Your task to perform on an android device: see sites visited before in the chrome app Image 0: 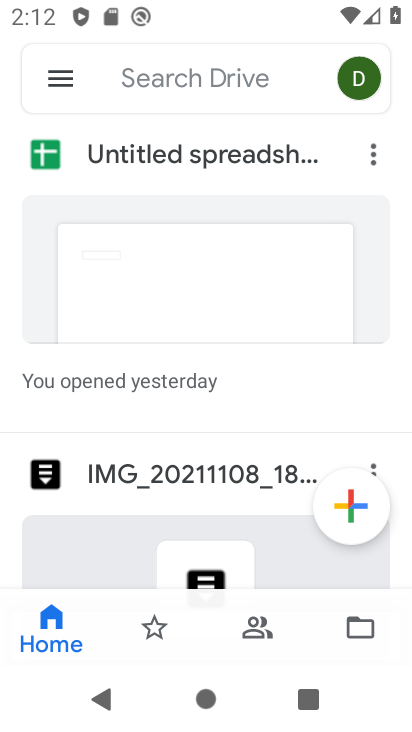
Step 0: press home button
Your task to perform on an android device: see sites visited before in the chrome app Image 1: 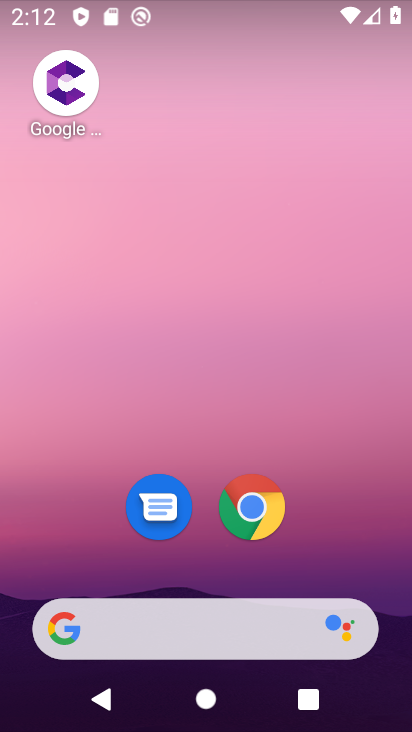
Step 1: click (255, 511)
Your task to perform on an android device: see sites visited before in the chrome app Image 2: 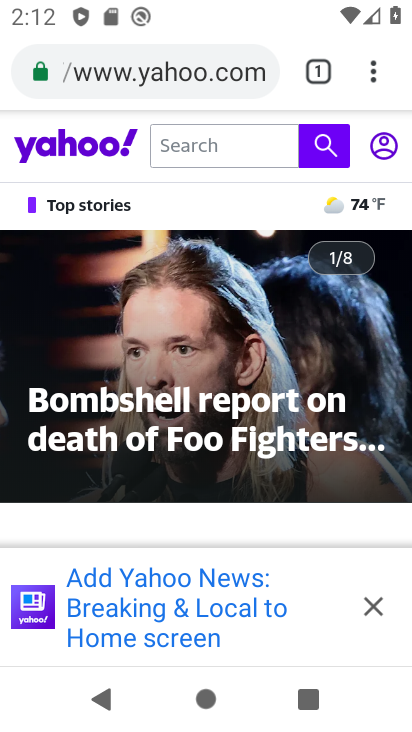
Step 2: click (363, 70)
Your task to perform on an android device: see sites visited before in the chrome app Image 3: 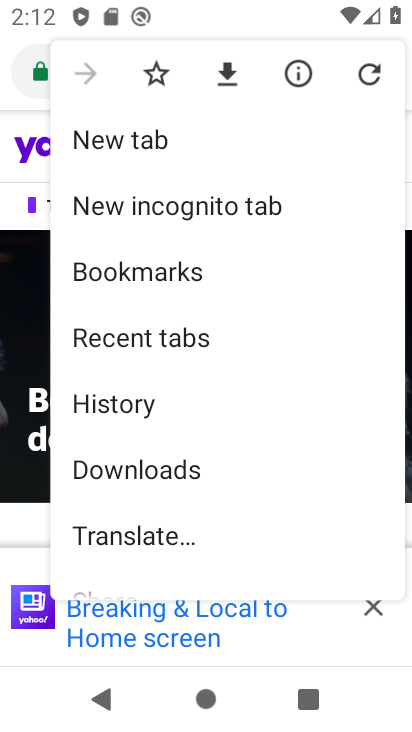
Step 3: drag from (305, 428) to (342, 142)
Your task to perform on an android device: see sites visited before in the chrome app Image 4: 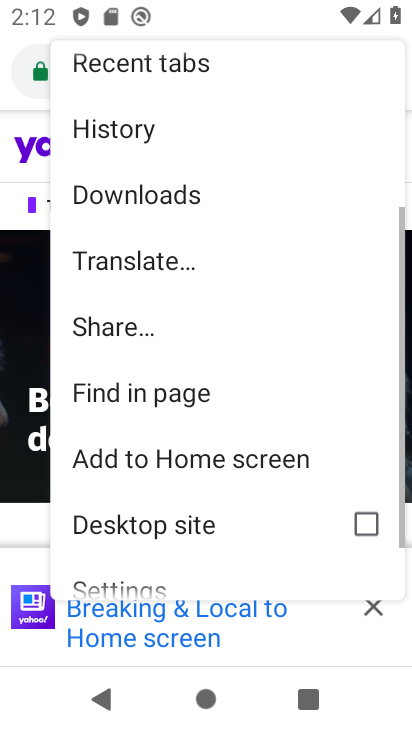
Step 4: drag from (275, 499) to (364, 0)
Your task to perform on an android device: see sites visited before in the chrome app Image 5: 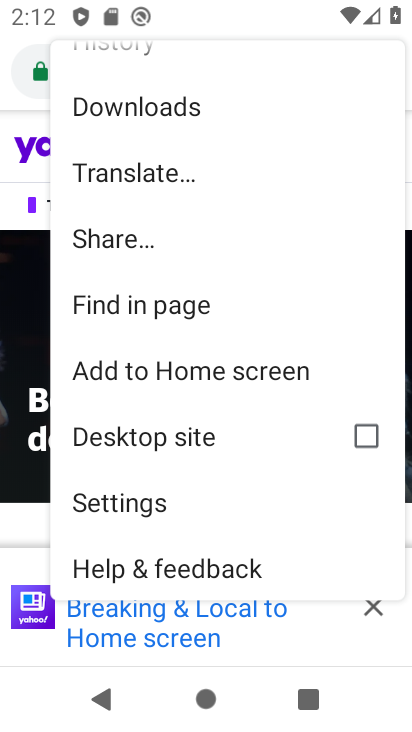
Step 5: click (198, 505)
Your task to perform on an android device: see sites visited before in the chrome app Image 6: 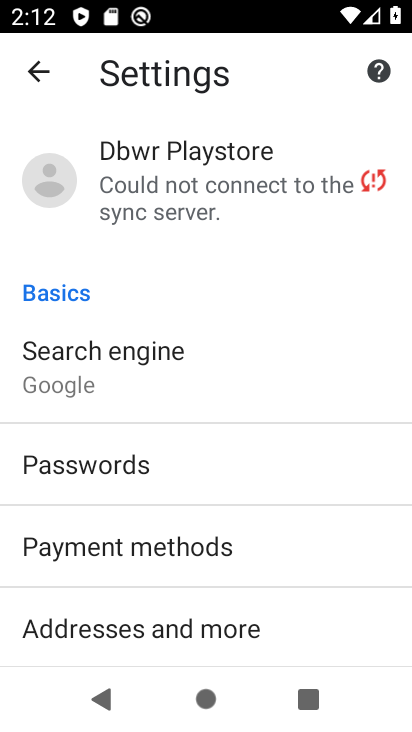
Step 6: drag from (241, 597) to (309, 35)
Your task to perform on an android device: see sites visited before in the chrome app Image 7: 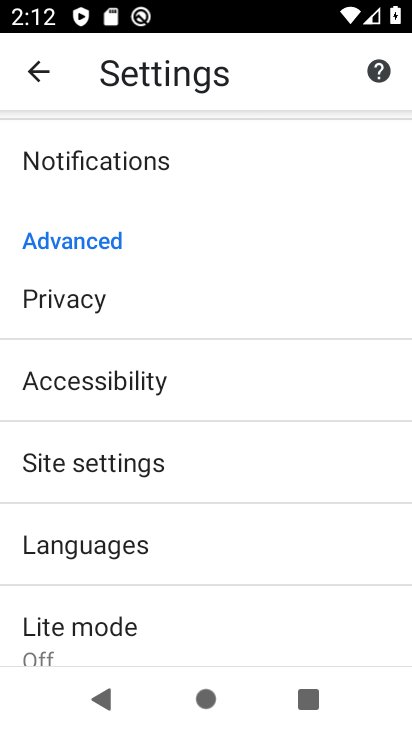
Step 7: drag from (228, 506) to (286, 138)
Your task to perform on an android device: see sites visited before in the chrome app Image 8: 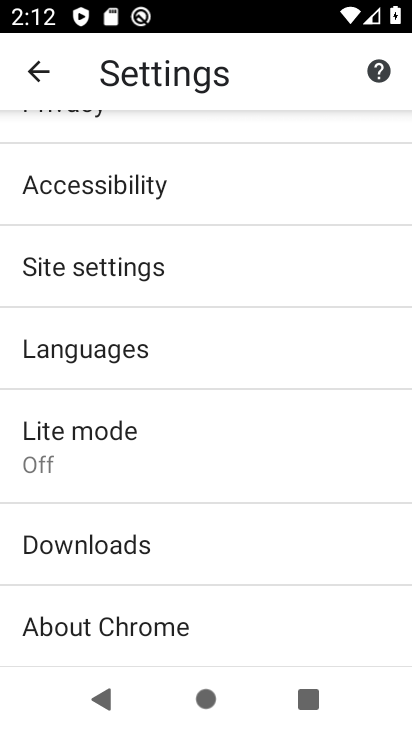
Step 8: click (114, 275)
Your task to perform on an android device: see sites visited before in the chrome app Image 9: 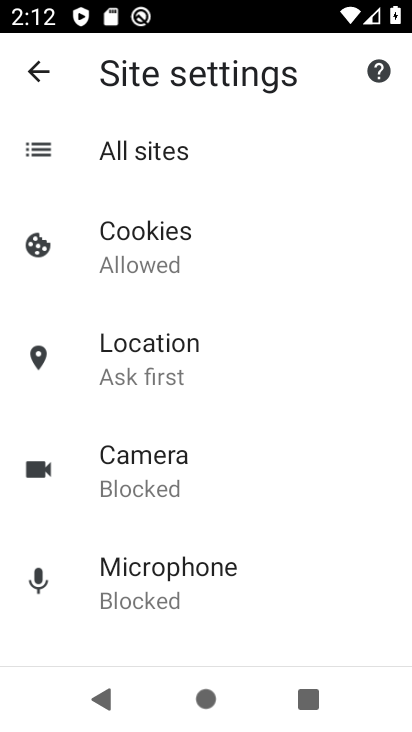
Step 9: task complete